Your task to perform on an android device: Go to internet settings Image 0: 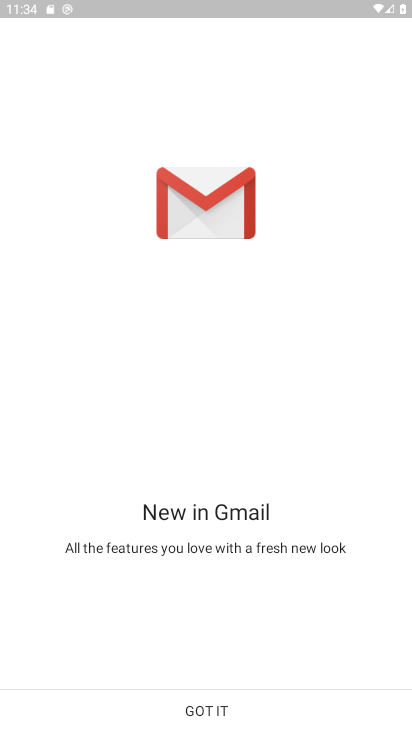
Step 0: press home button
Your task to perform on an android device: Go to internet settings Image 1: 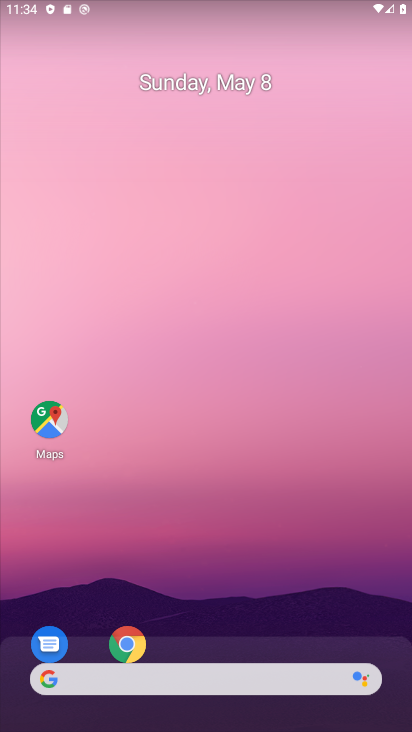
Step 1: drag from (302, 576) to (280, 105)
Your task to perform on an android device: Go to internet settings Image 2: 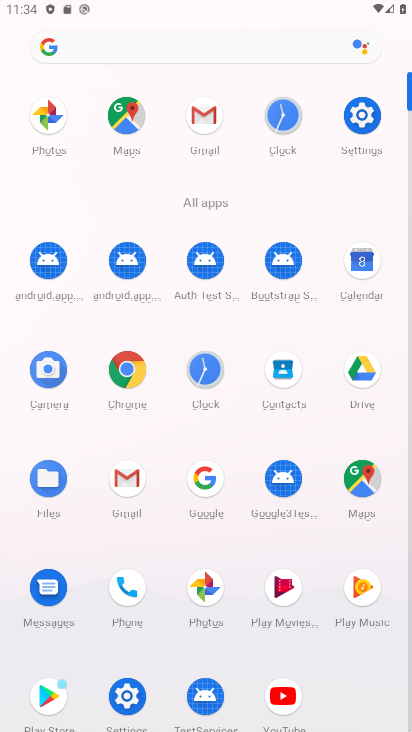
Step 2: click (367, 109)
Your task to perform on an android device: Go to internet settings Image 3: 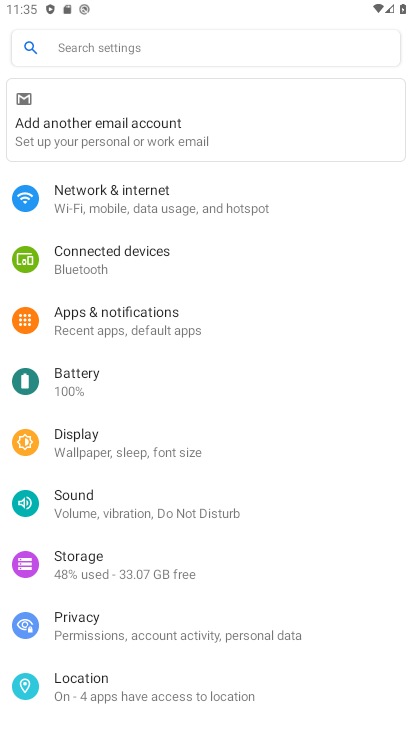
Step 3: click (131, 209)
Your task to perform on an android device: Go to internet settings Image 4: 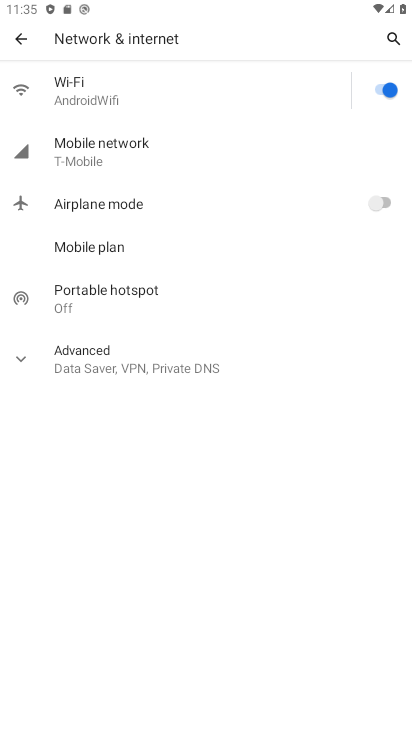
Step 4: task complete